Your task to perform on an android device: turn on sleep mode Image 0: 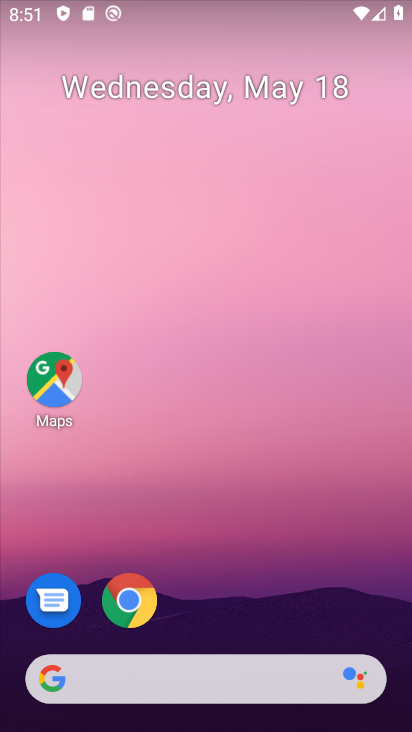
Step 0: drag from (60, 552) to (272, 175)
Your task to perform on an android device: turn on sleep mode Image 1: 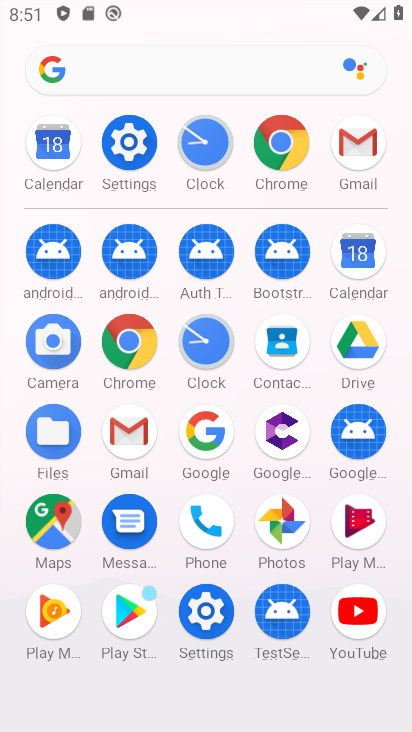
Step 1: click (123, 128)
Your task to perform on an android device: turn on sleep mode Image 2: 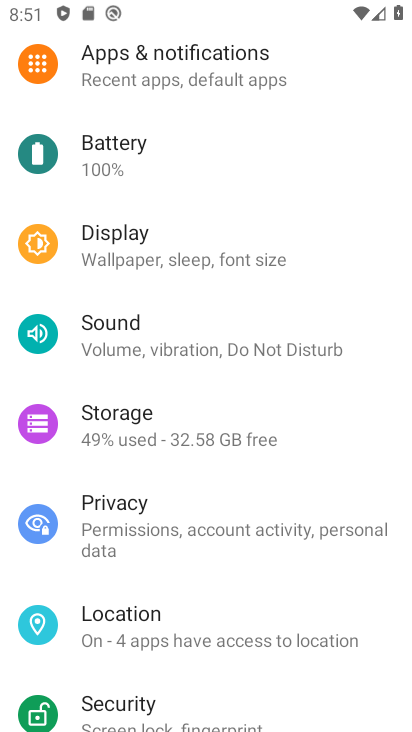
Step 2: click (206, 272)
Your task to perform on an android device: turn on sleep mode Image 3: 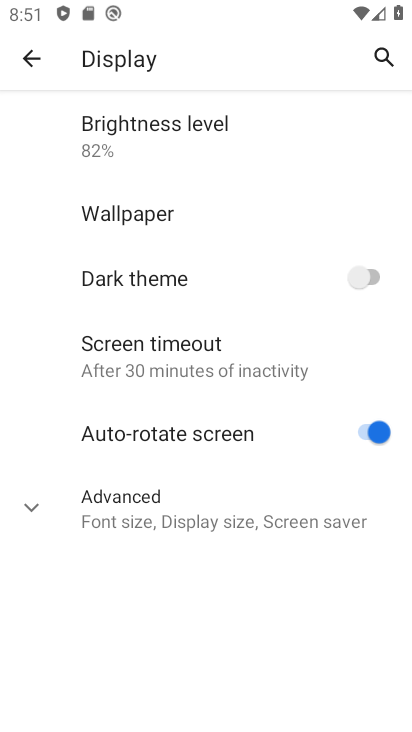
Step 3: task complete